Your task to perform on an android device: Show me productivity apps on the Play Store Image 0: 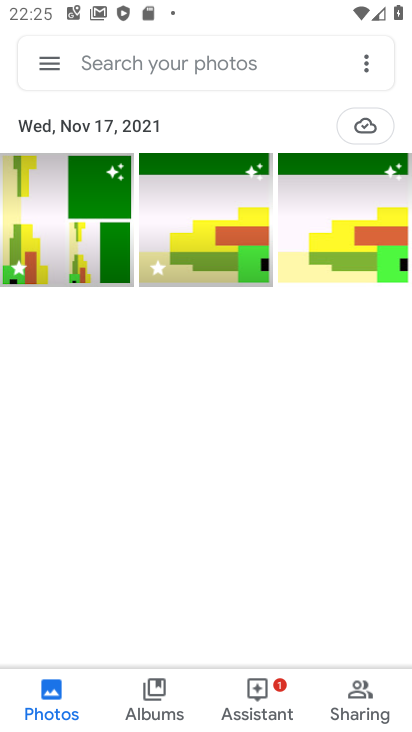
Step 0: press home button
Your task to perform on an android device: Show me productivity apps on the Play Store Image 1: 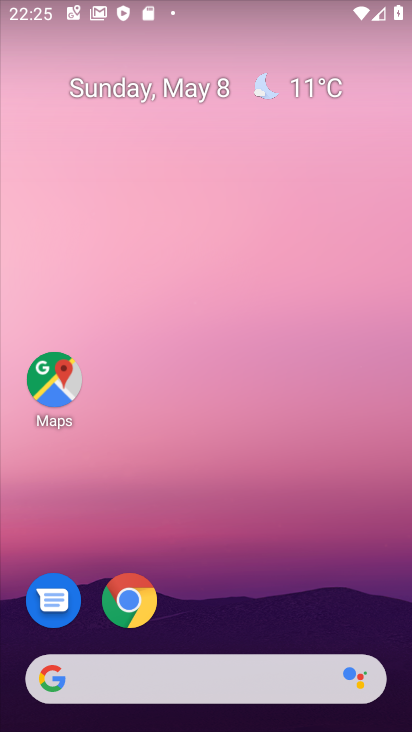
Step 1: drag from (227, 622) to (221, 221)
Your task to perform on an android device: Show me productivity apps on the Play Store Image 2: 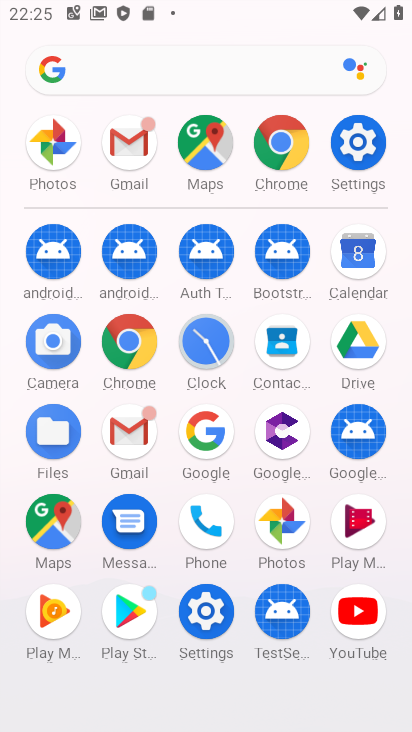
Step 2: click (126, 620)
Your task to perform on an android device: Show me productivity apps on the Play Store Image 3: 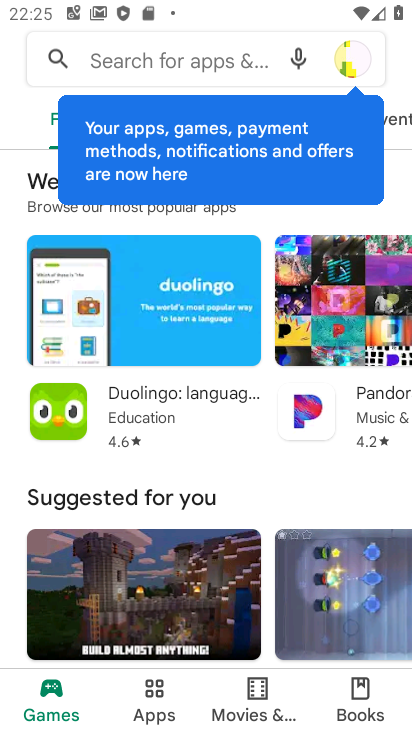
Step 3: click (161, 720)
Your task to perform on an android device: Show me productivity apps on the Play Store Image 4: 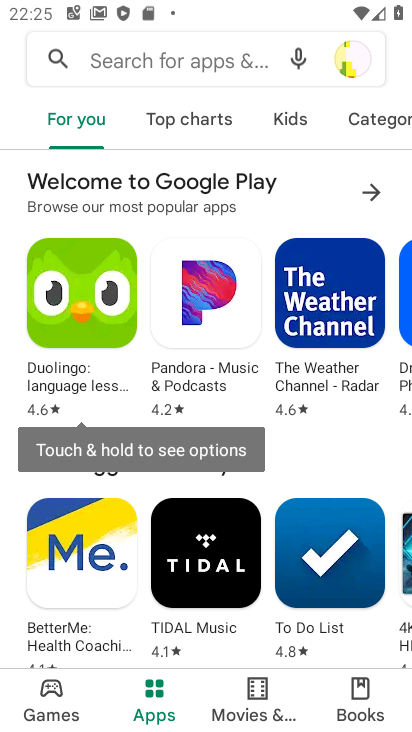
Step 4: click (392, 116)
Your task to perform on an android device: Show me productivity apps on the Play Store Image 5: 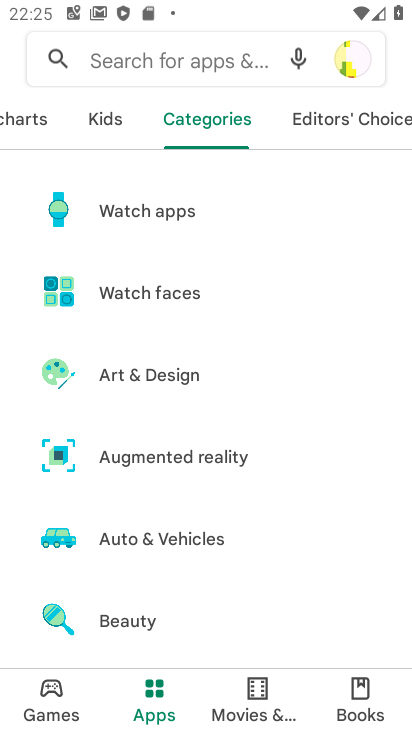
Step 5: drag from (171, 574) to (236, 101)
Your task to perform on an android device: Show me productivity apps on the Play Store Image 6: 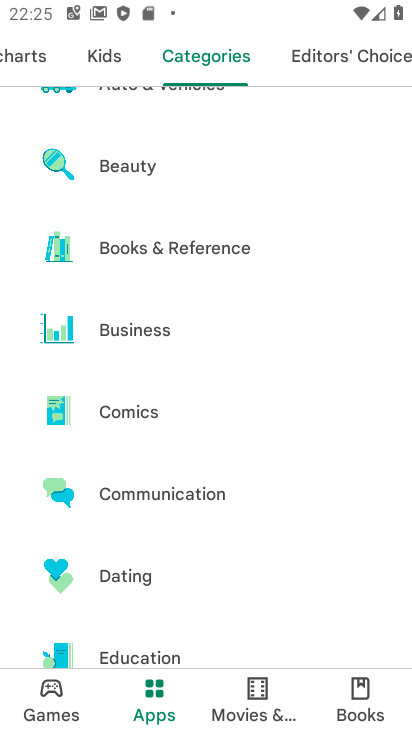
Step 6: drag from (107, 606) to (213, 34)
Your task to perform on an android device: Show me productivity apps on the Play Store Image 7: 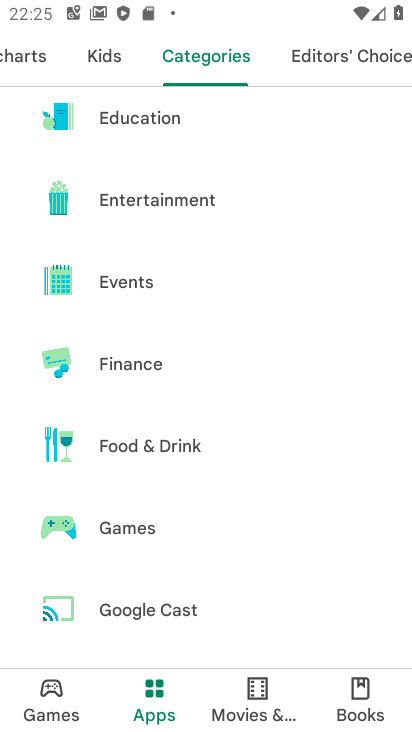
Step 7: drag from (144, 589) to (233, 203)
Your task to perform on an android device: Show me productivity apps on the Play Store Image 8: 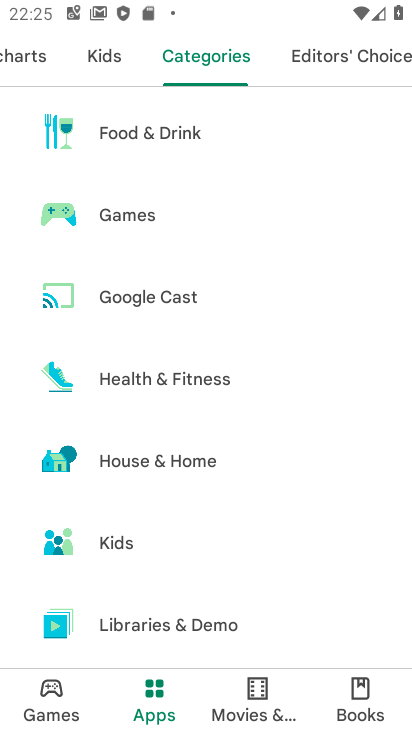
Step 8: drag from (144, 587) to (167, 4)
Your task to perform on an android device: Show me productivity apps on the Play Store Image 9: 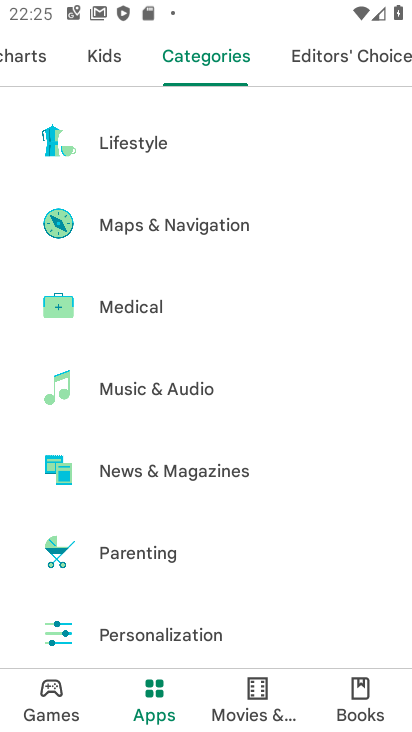
Step 9: drag from (134, 624) to (264, 177)
Your task to perform on an android device: Show me productivity apps on the Play Store Image 10: 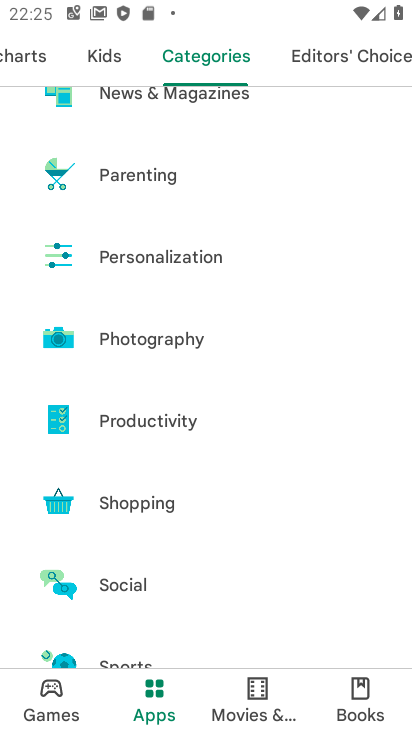
Step 10: click (117, 439)
Your task to perform on an android device: Show me productivity apps on the Play Store Image 11: 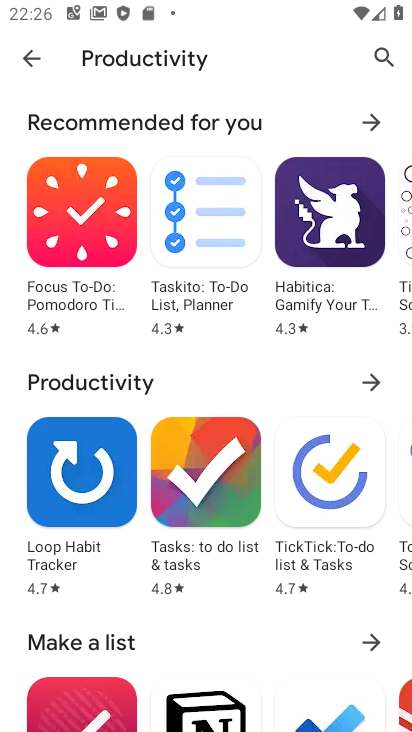
Step 11: task complete